Your task to perform on an android device: Is it going to rain tomorrow? Image 0: 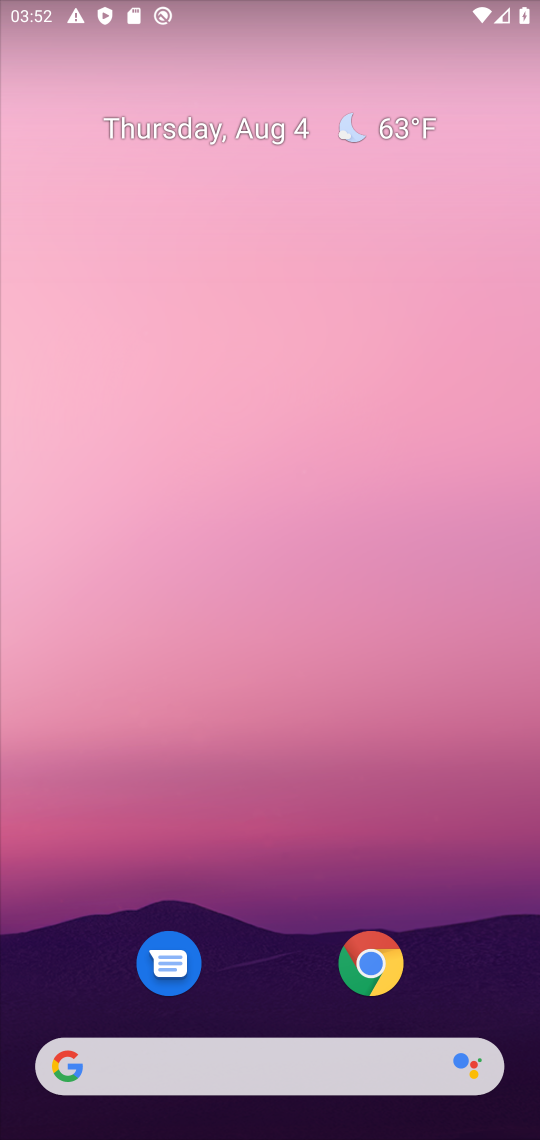
Step 0: click (281, 1048)
Your task to perform on an android device: Is it going to rain tomorrow? Image 1: 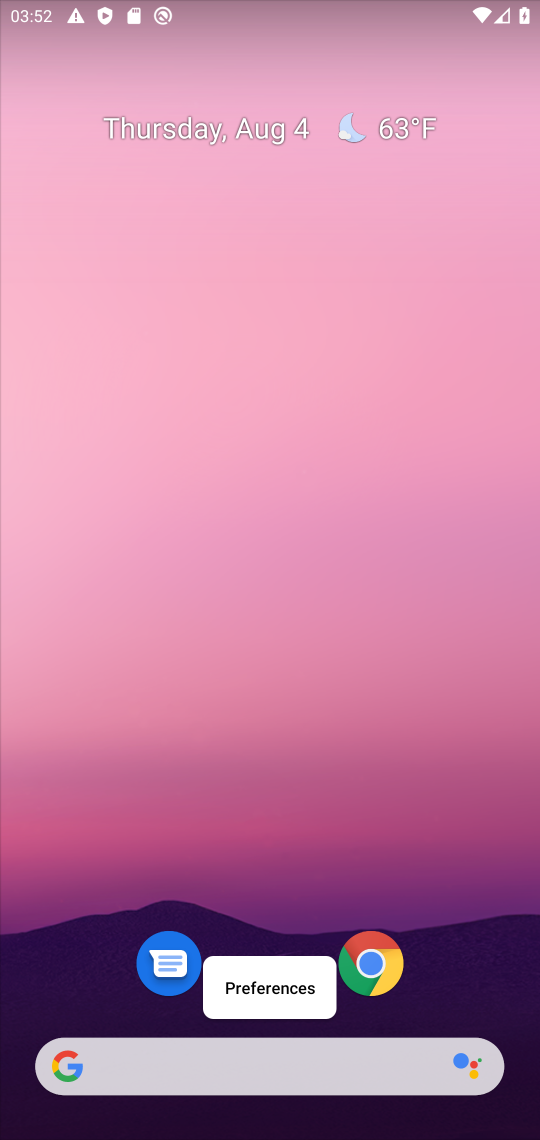
Step 1: click (224, 1054)
Your task to perform on an android device: Is it going to rain tomorrow? Image 2: 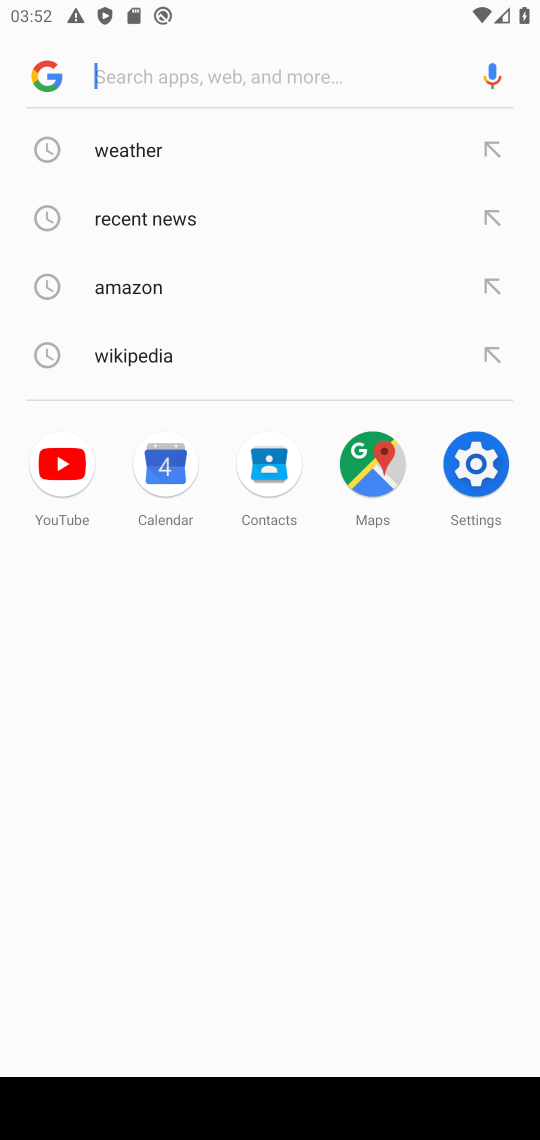
Step 2: click (136, 152)
Your task to perform on an android device: Is it going to rain tomorrow? Image 3: 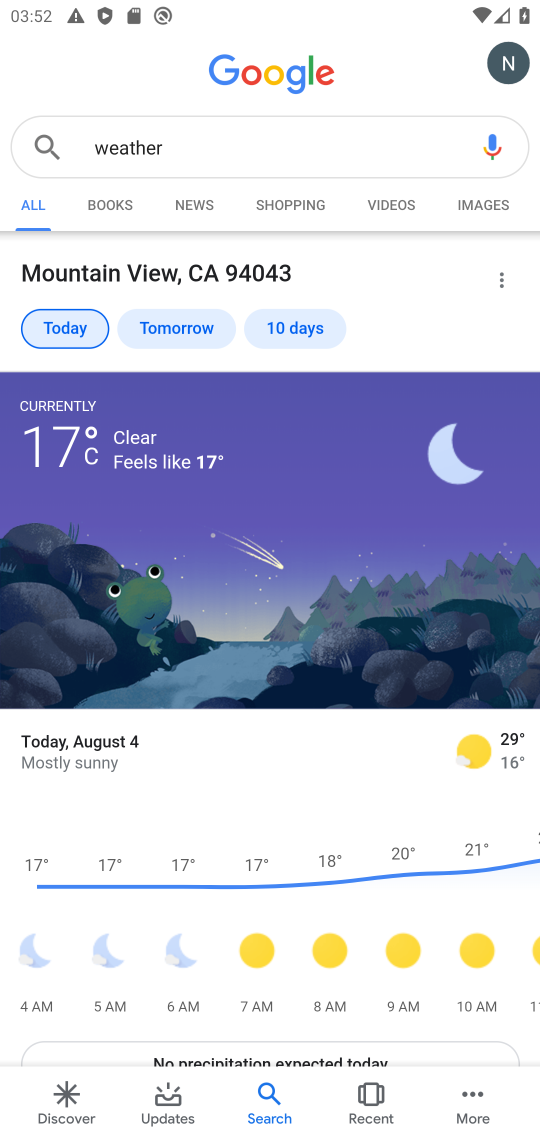
Step 3: click (191, 317)
Your task to perform on an android device: Is it going to rain tomorrow? Image 4: 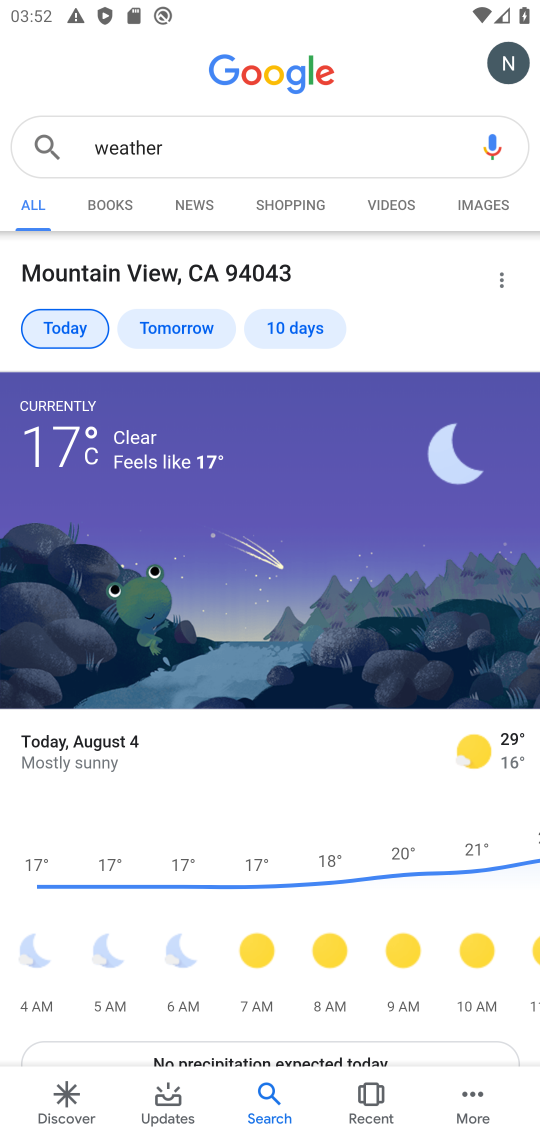
Step 4: click (182, 317)
Your task to perform on an android device: Is it going to rain tomorrow? Image 5: 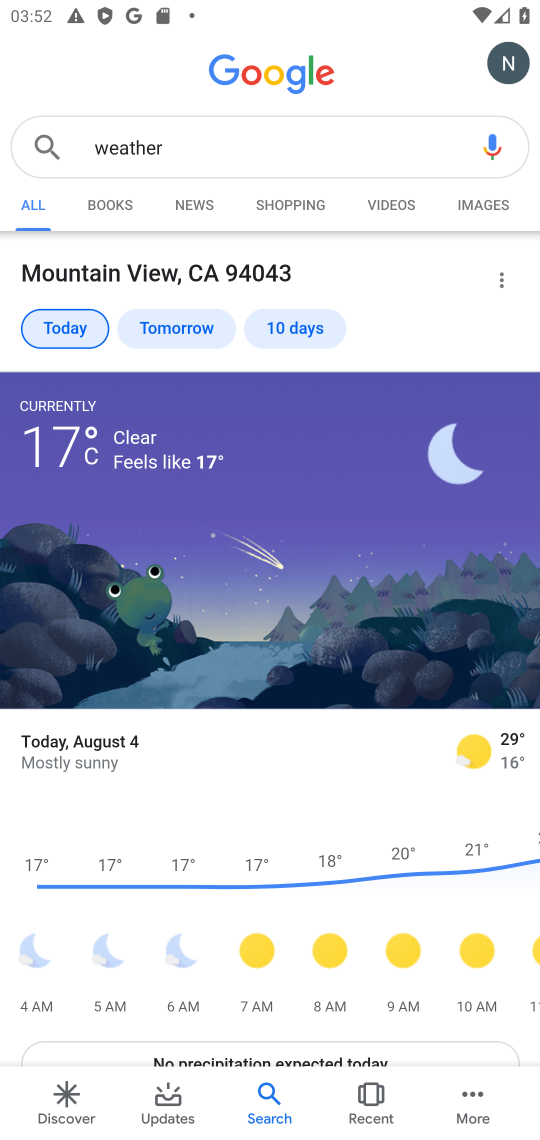
Step 5: click (177, 331)
Your task to perform on an android device: Is it going to rain tomorrow? Image 6: 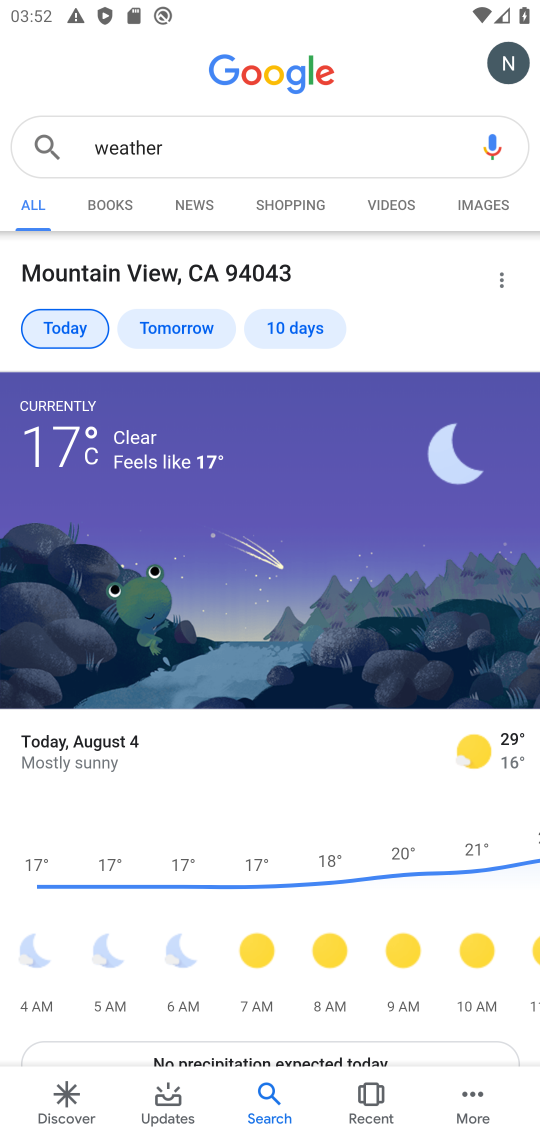
Step 6: click (177, 331)
Your task to perform on an android device: Is it going to rain tomorrow? Image 7: 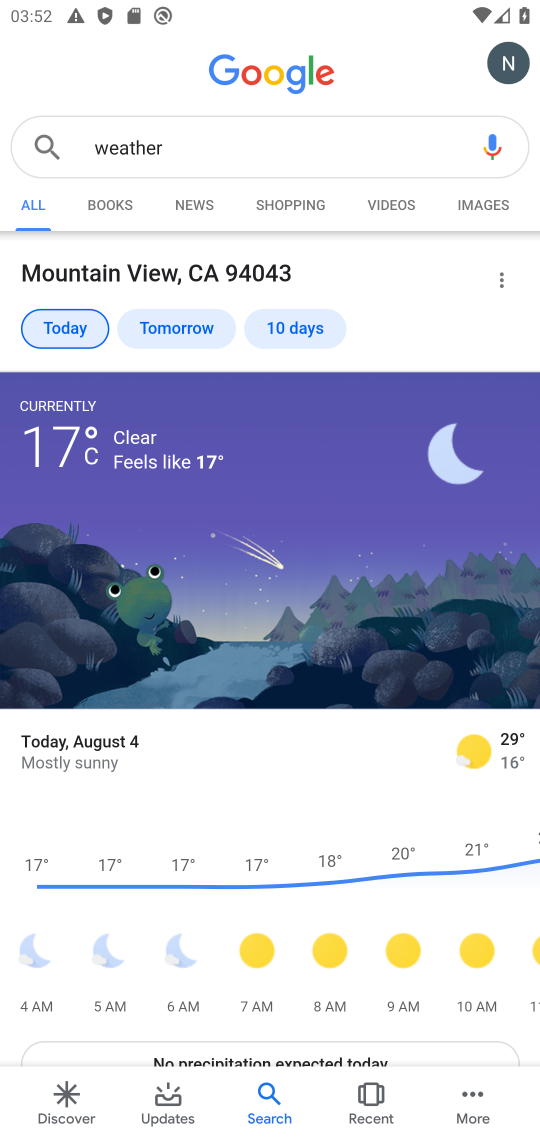
Step 7: task complete